Your task to perform on an android device: make emails show in primary in the gmail app Image 0: 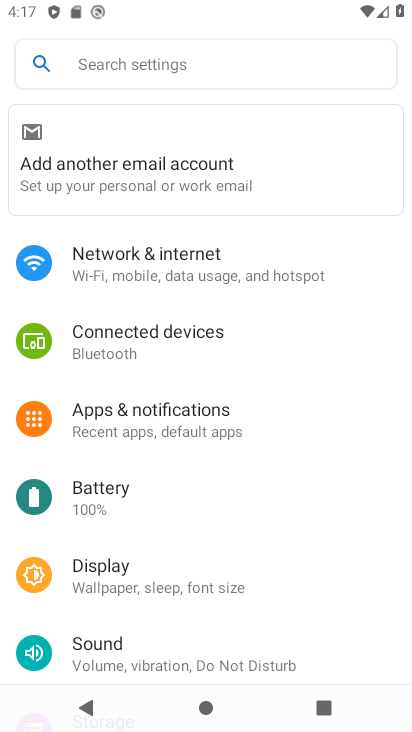
Step 0: press home button
Your task to perform on an android device: make emails show in primary in the gmail app Image 1: 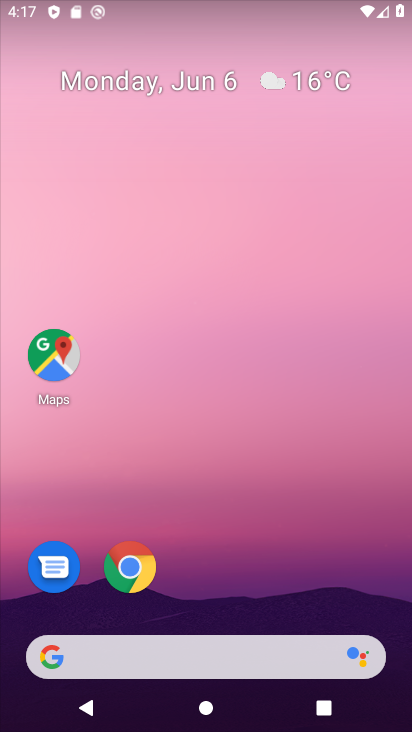
Step 1: drag from (260, 598) to (353, 196)
Your task to perform on an android device: make emails show in primary in the gmail app Image 2: 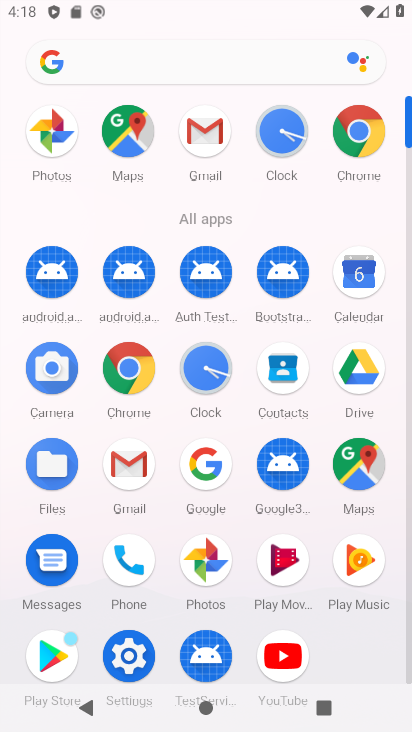
Step 2: click (133, 480)
Your task to perform on an android device: make emails show in primary in the gmail app Image 3: 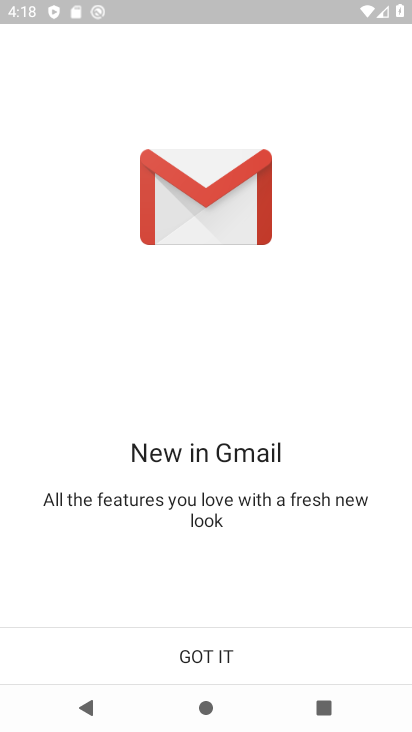
Step 3: click (279, 664)
Your task to perform on an android device: make emails show in primary in the gmail app Image 4: 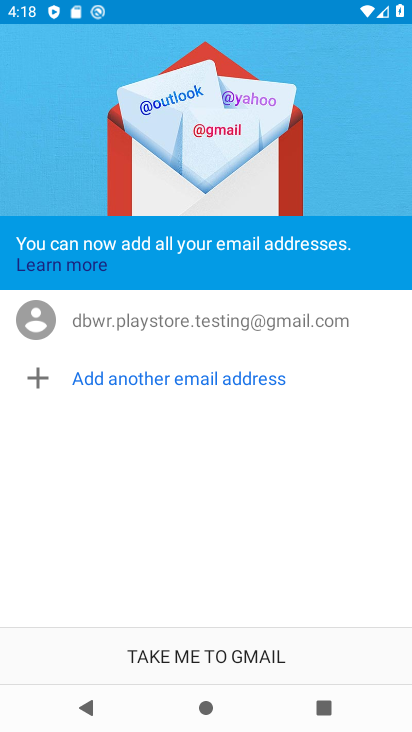
Step 4: click (271, 672)
Your task to perform on an android device: make emails show in primary in the gmail app Image 5: 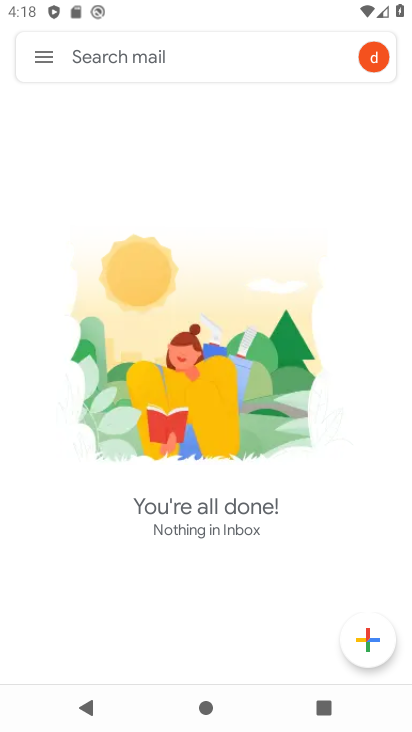
Step 5: click (38, 58)
Your task to perform on an android device: make emails show in primary in the gmail app Image 6: 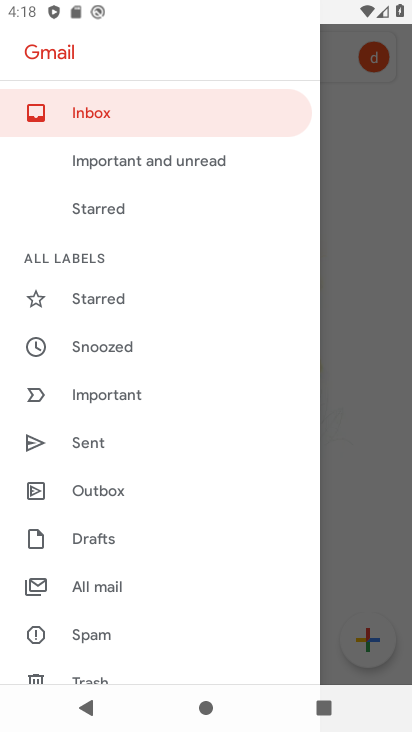
Step 6: drag from (110, 594) to (283, 237)
Your task to perform on an android device: make emails show in primary in the gmail app Image 7: 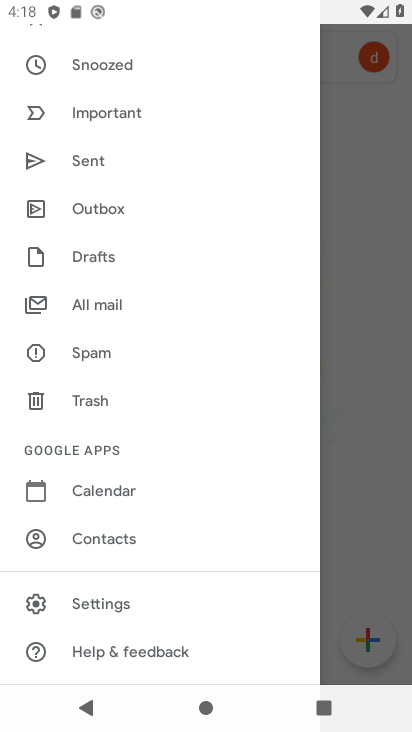
Step 7: click (121, 601)
Your task to perform on an android device: make emails show in primary in the gmail app Image 8: 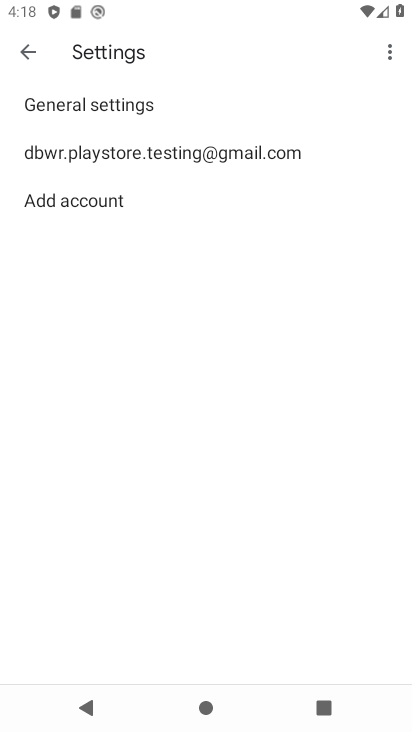
Step 8: click (288, 168)
Your task to perform on an android device: make emails show in primary in the gmail app Image 9: 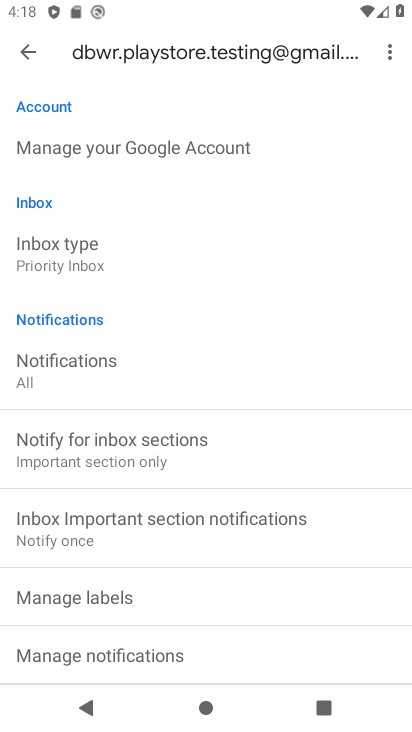
Step 9: click (120, 240)
Your task to perform on an android device: make emails show in primary in the gmail app Image 10: 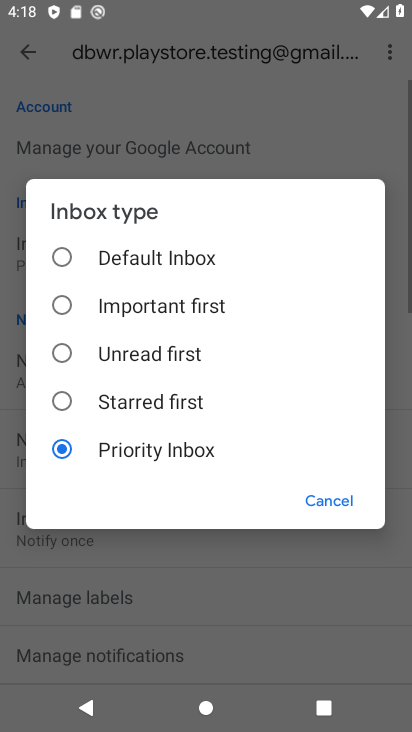
Step 10: click (165, 265)
Your task to perform on an android device: make emails show in primary in the gmail app Image 11: 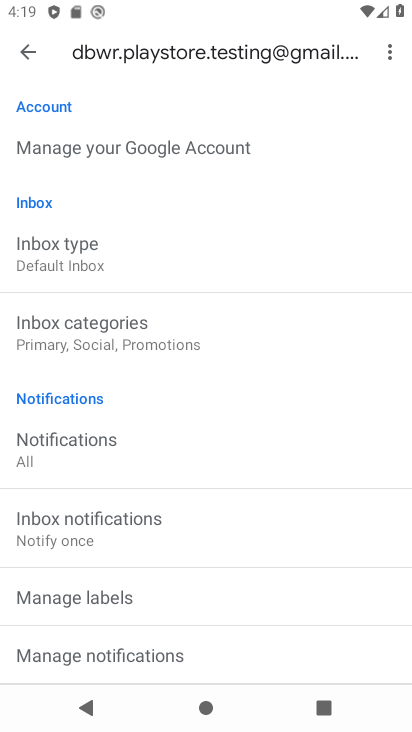
Step 11: click (180, 335)
Your task to perform on an android device: make emails show in primary in the gmail app Image 12: 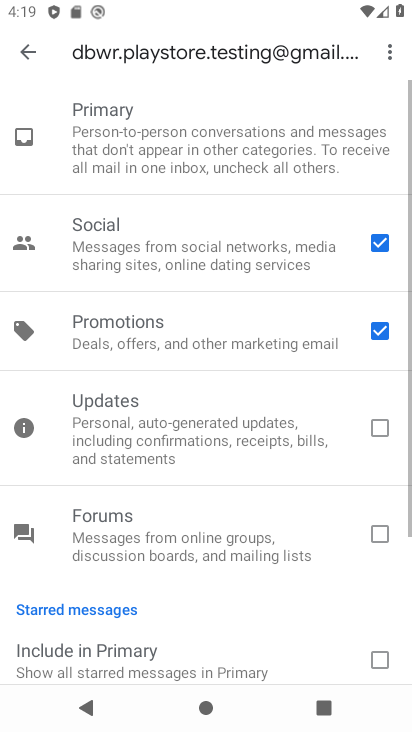
Step 12: drag from (186, 588) to (310, 306)
Your task to perform on an android device: make emails show in primary in the gmail app Image 13: 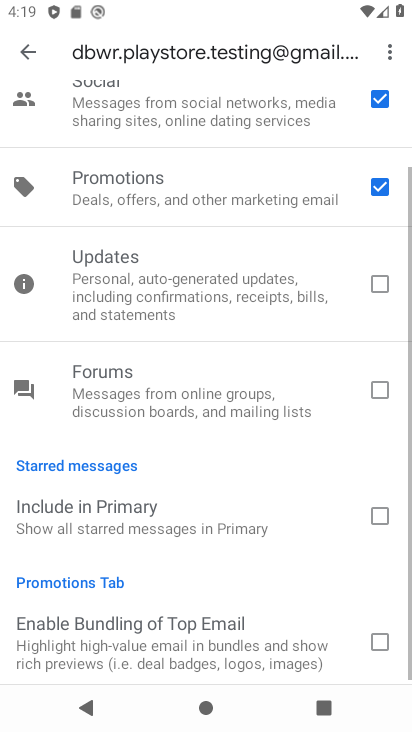
Step 13: click (380, 512)
Your task to perform on an android device: make emails show in primary in the gmail app Image 14: 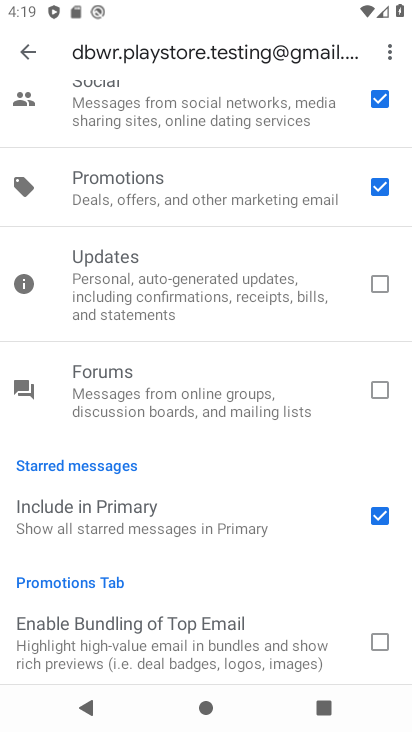
Step 14: task complete